Your task to perform on an android device: When is my next meeting? Image 0: 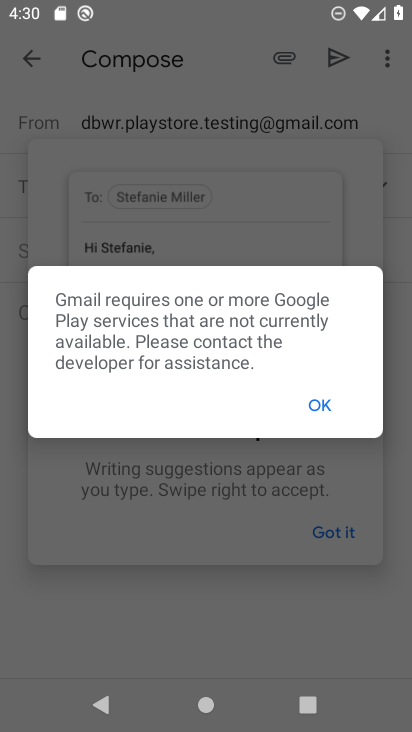
Step 0: press home button
Your task to perform on an android device: When is my next meeting? Image 1: 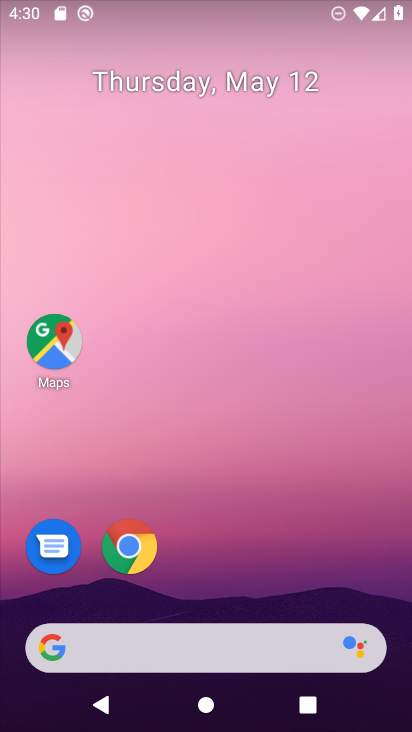
Step 1: drag from (289, 486) to (300, 225)
Your task to perform on an android device: When is my next meeting? Image 2: 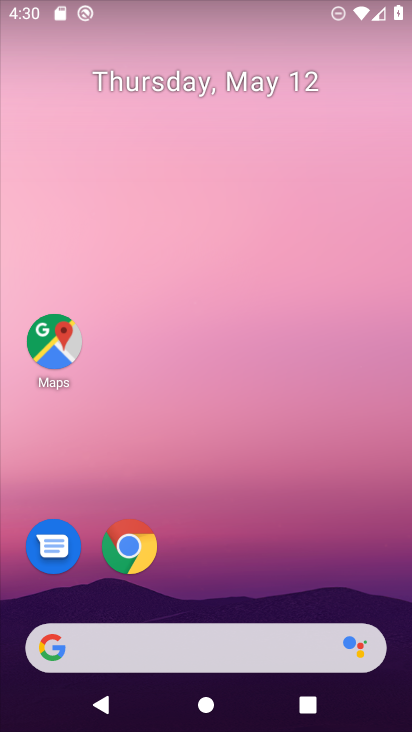
Step 2: drag from (206, 599) to (268, 190)
Your task to perform on an android device: When is my next meeting? Image 3: 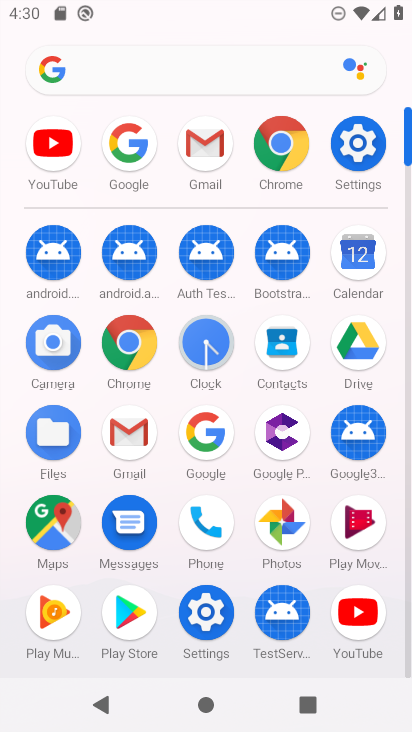
Step 3: click (348, 251)
Your task to perform on an android device: When is my next meeting? Image 4: 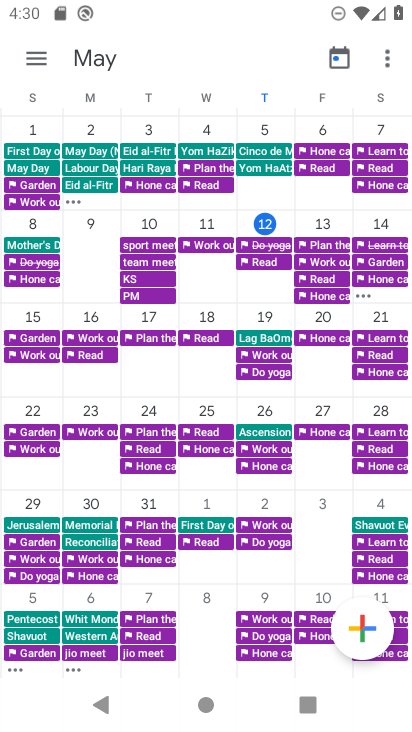
Step 4: click (317, 219)
Your task to perform on an android device: When is my next meeting? Image 5: 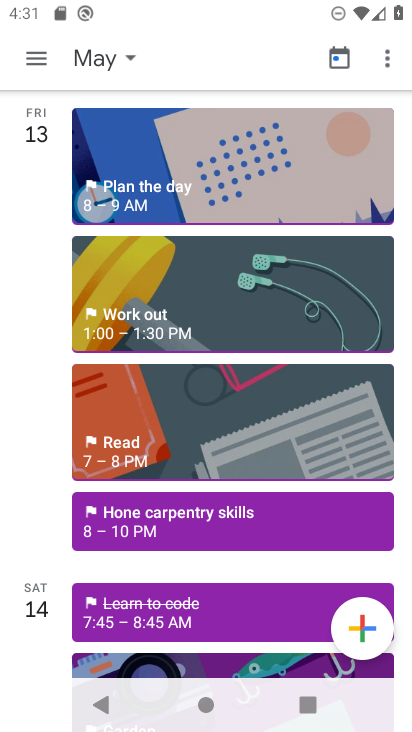
Step 5: task complete